Your task to perform on an android device: turn on improve location accuracy Image 0: 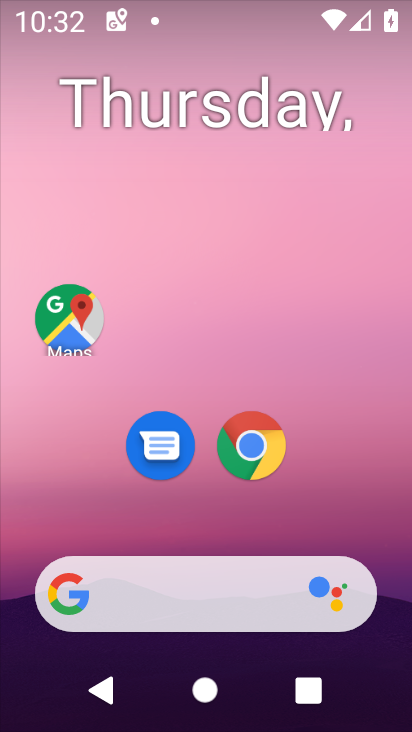
Step 0: drag from (386, 604) to (282, 69)
Your task to perform on an android device: turn on improve location accuracy Image 1: 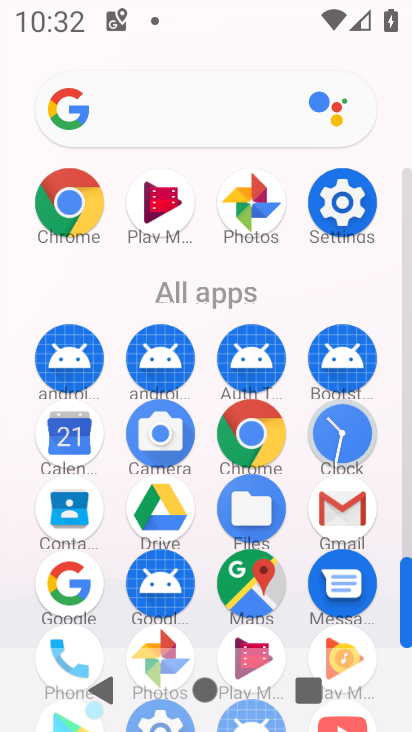
Step 1: click (333, 198)
Your task to perform on an android device: turn on improve location accuracy Image 2: 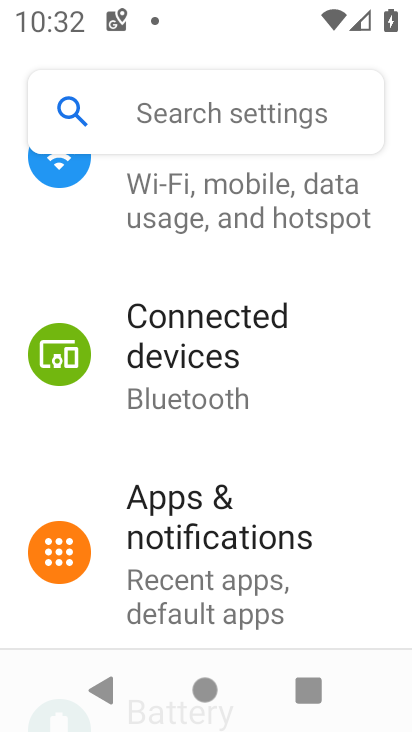
Step 2: drag from (235, 569) to (229, 123)
Your task to perform on an android device: turn on improve location accuracy Image 3: 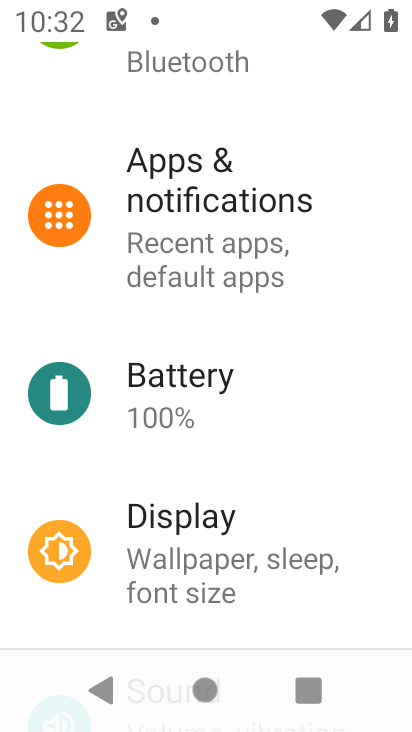
Step 3: drag from (195, 617) to (206, 187)
Your task to perform on an android device: turn on improve location accuracy Image 4: 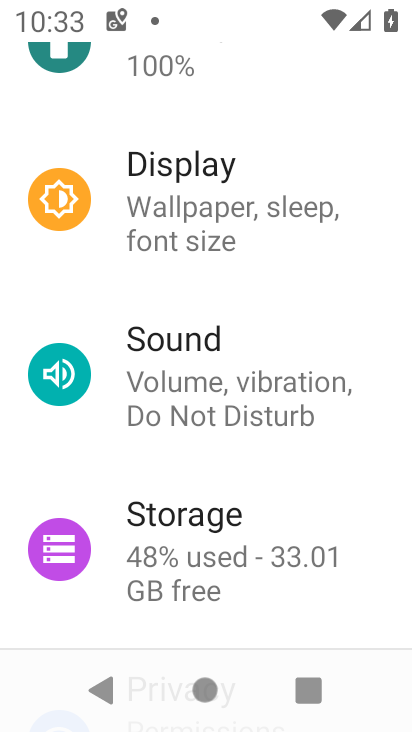
Step 4: drag from (170, 548) to (157, 121)
Your task to perform on an android device: turn on improve location accuracy Image 5: 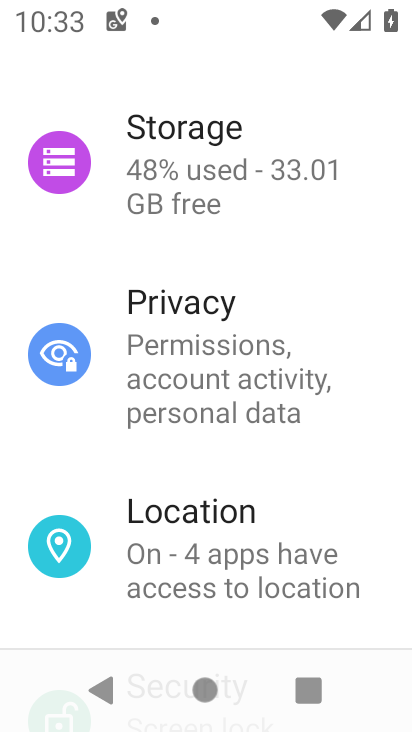
Step 5: click (193, 516)
Your task to perform on an android device: turn on improve location accuracy Image 6: 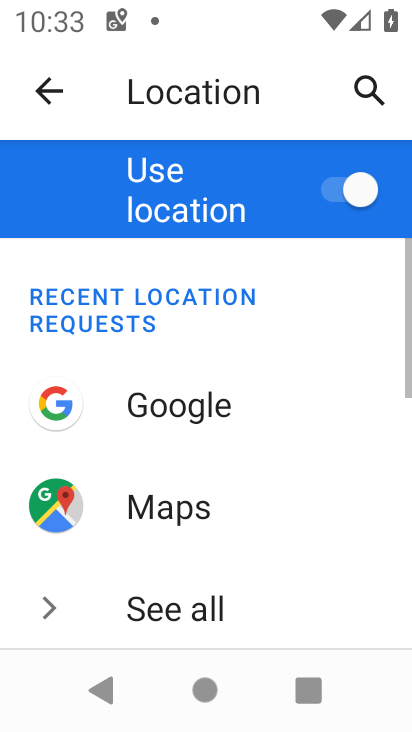
Step 6: drag from (199, 602) to (173, 81)
Your task to perform on an android device: turn on improve location accuracy Image 7: 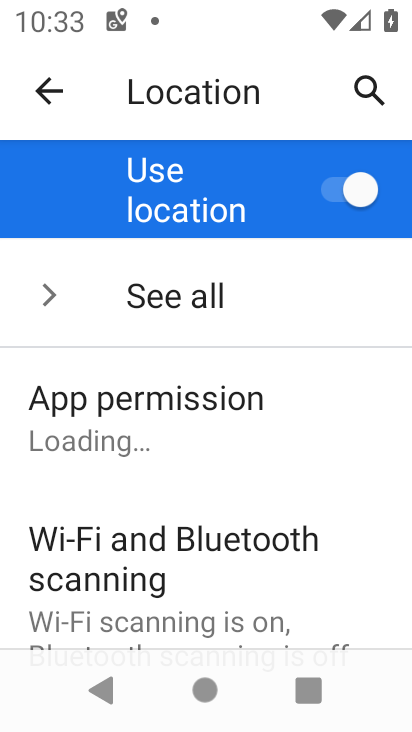
Step 7: drag from (124, 556) to (153, 136)
Your task to perform on an android device: turn on improve location accuracy Image 8: 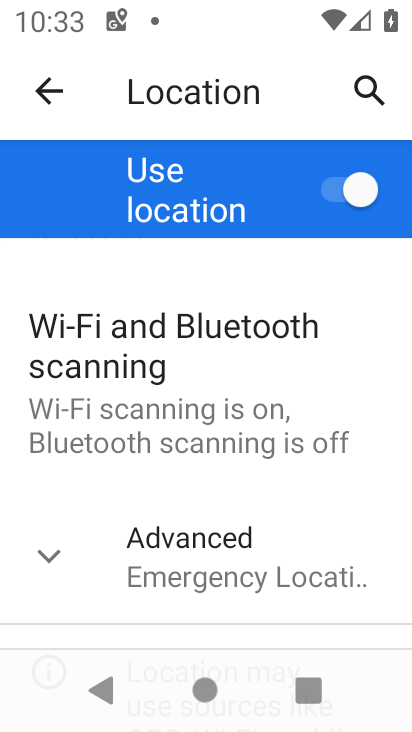
Step 8: click (97, 568)
Your task to perform on an android device: turn on improve location accuracy Image 9: 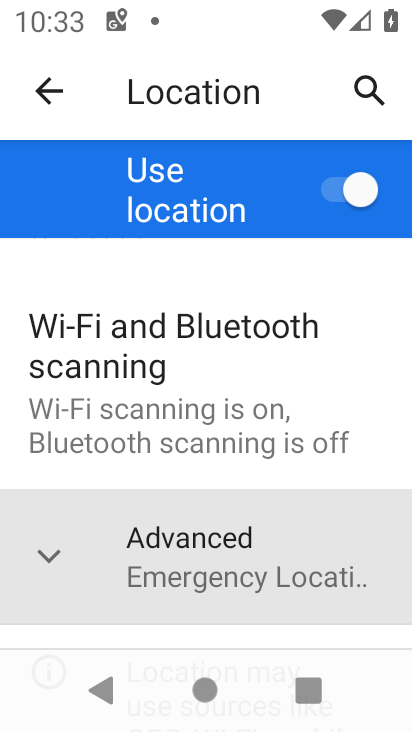
Step 9: drag from (104, 572) to (147, 87)
Your task to perform on an android device: turn on improve location accuracy Image 10: 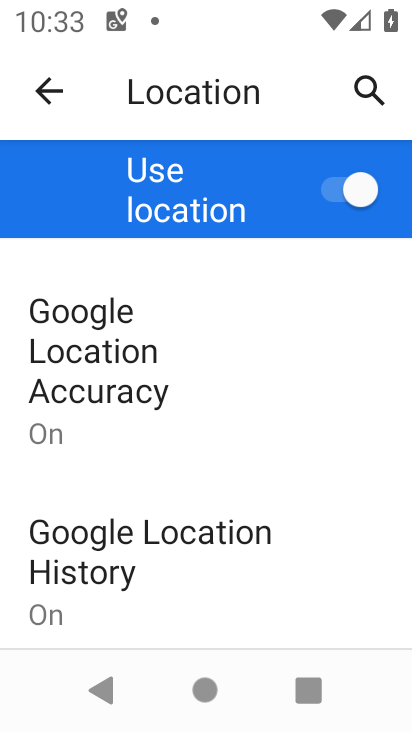
Step 10: click (165, 409)
Your task to perform on an android device: turn on improve location accuracy Image 11: 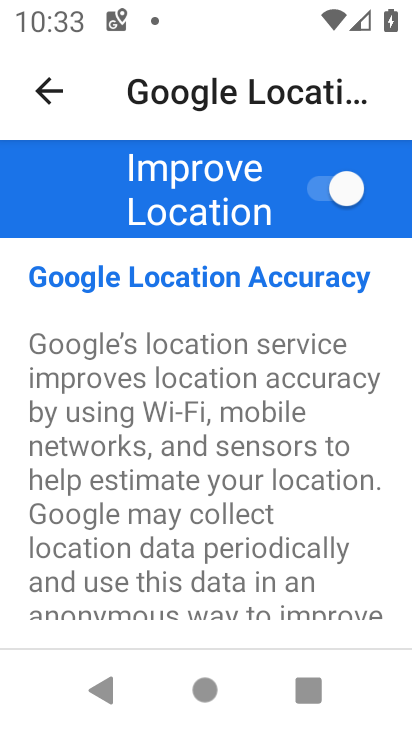
Step 11: task complete